Your task to perform on an android device: search for starred emails in the gmail app Image 0: 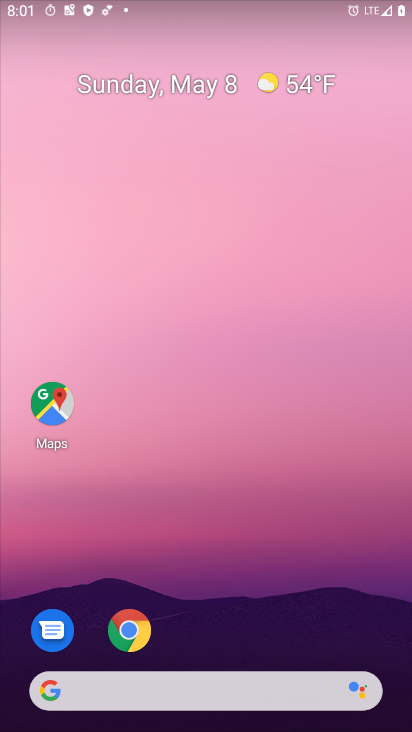
Step 0: drag from (200, 653) to (329, 19)
Your task to perform on an android device: search for starred emails in the gmail app Image 1: 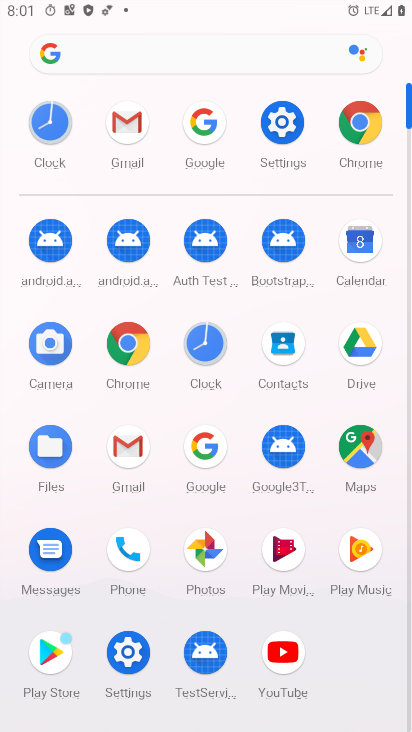
Step 1: click (133, 452)
Your task to perform on an android device: search for starred emails in the gmail app Image 2: 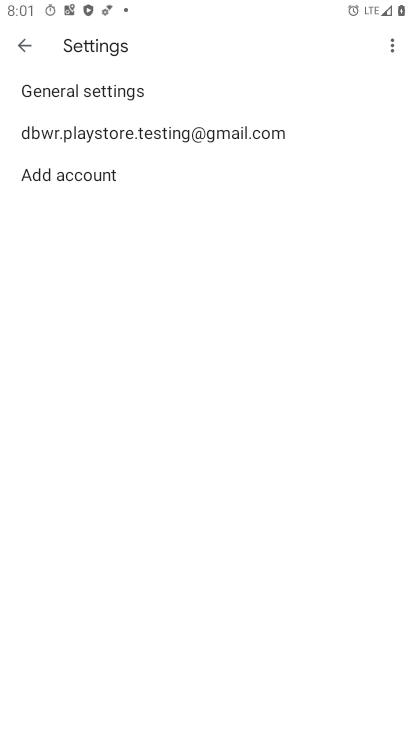
Step 2: click (27, 47)
Your task to perform on an android device: search for starred emails in the gmail app Image 3: 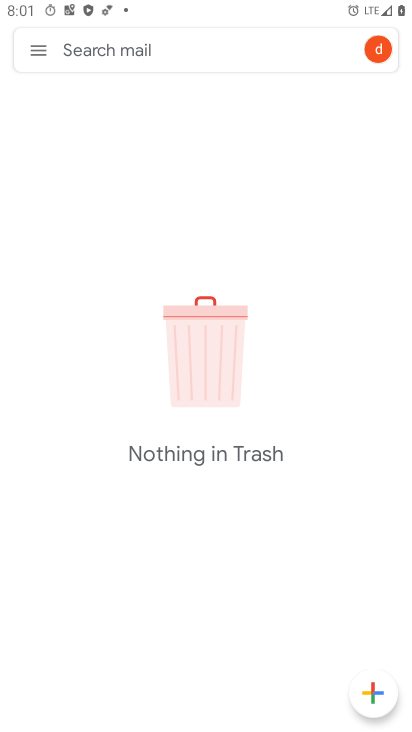
Step 3: click (27, 47)
Your task to perform on an android device: search for starred emails in the gmail app Image 4: 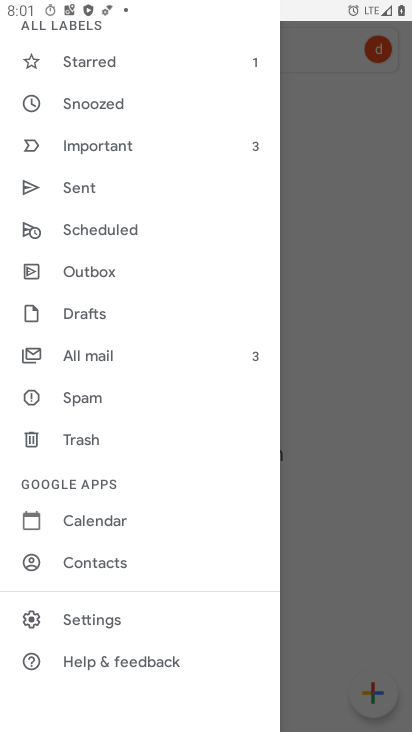
Step 4: click (95, 60)
Your task to perform on an android device: search for starred emails in the gmail app Image 5: 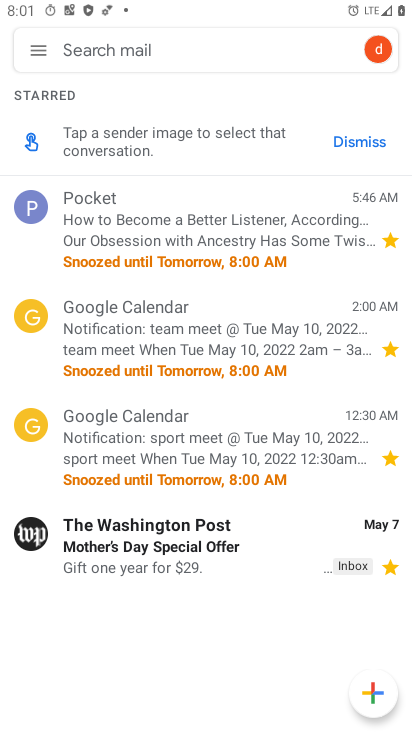
Step 5: task complete